Your task to perform on an android device: What's on my calendar today? Image 0: 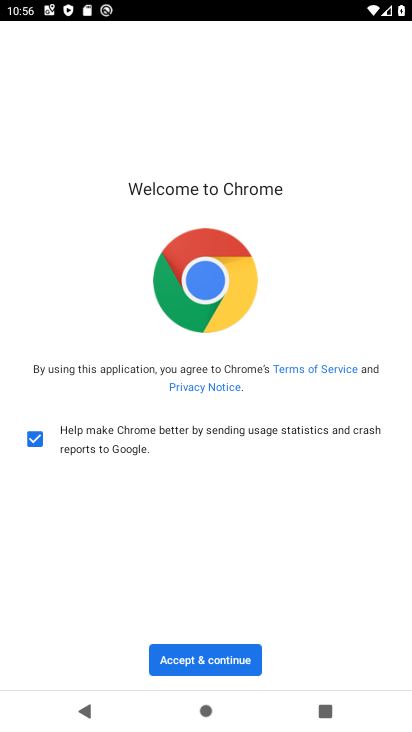
Step 0: press home button
Your task to perform on an android device: What's on my calendar today? Image 1: 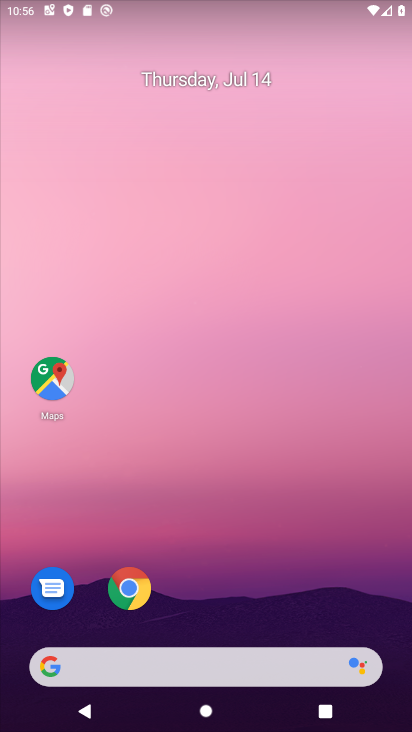
Step 1: drag from (376, 635) to (276, 121)
Your task to perform on an android device: What's on my calendar today? Image 2: 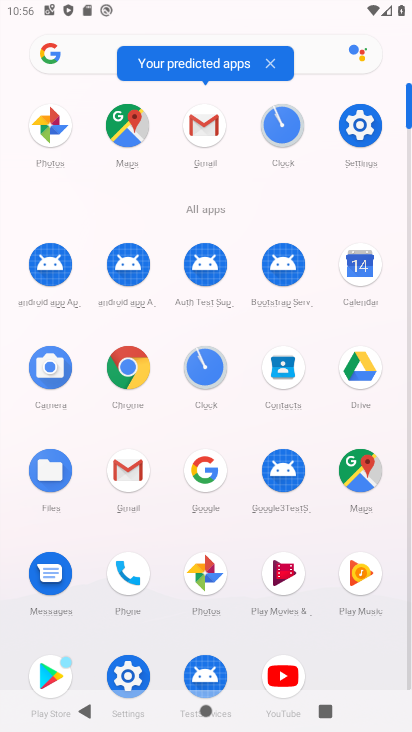
Step 2: click (360, 268)
Your task to perform on an android device: What's on my calendar today? Image 3: 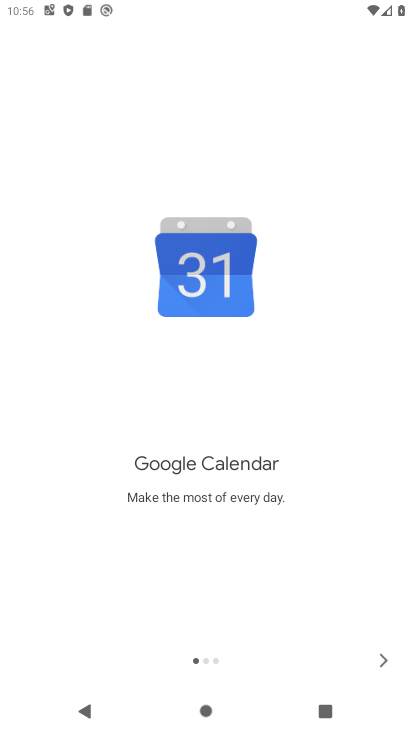
Step 3: click (377, 655)
Your task to perform on an android device: What's on my calendar today? Image 4: 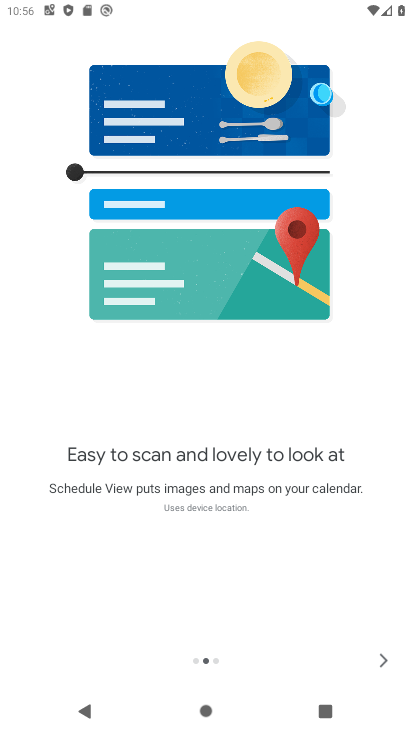
Step 4: click (377, 655)
Your task to perform on an android device: What's on my calendar today? Image 5: 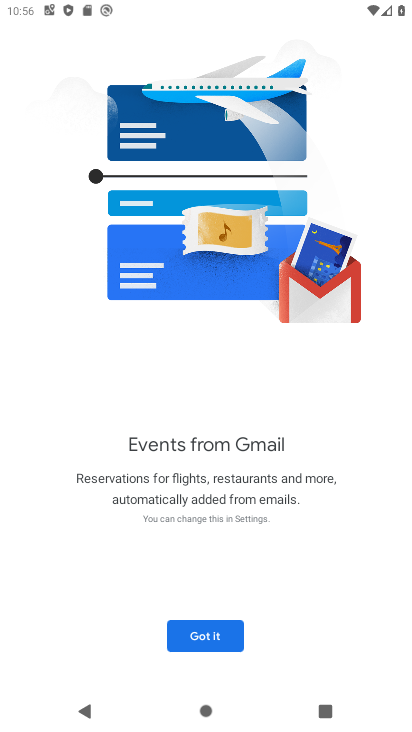
Step 5: click (204, 643)
Your task to perform on an android device: What's on my calendar today? Image 6: 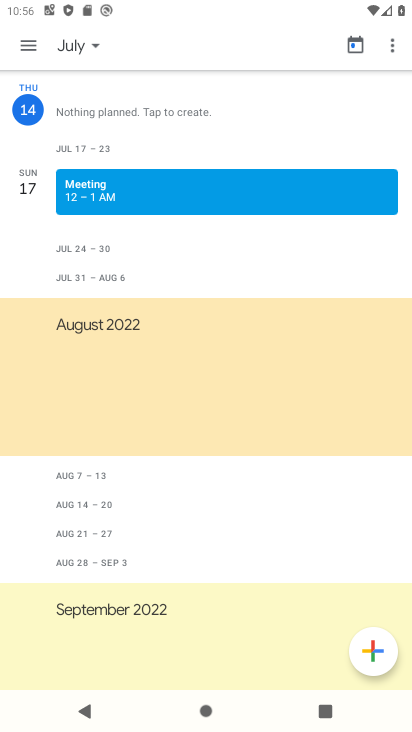
Step 6: click (28, 51)
Your task to perform on an android device: What's on my calendar today? Image 7: 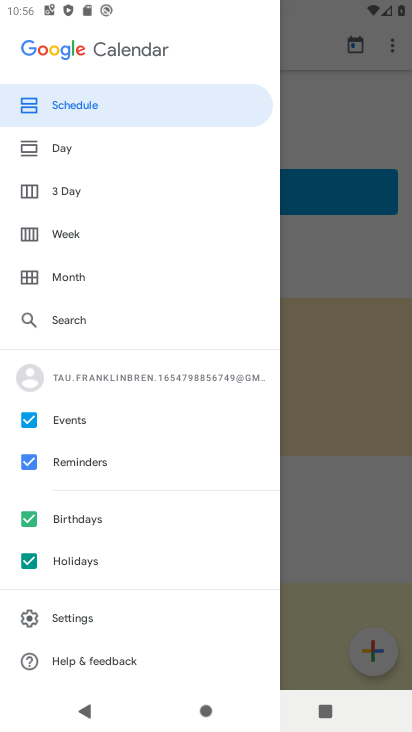
Step 7: click (46, 143)
Your task to perform on an android device: What's on my calendar today? Image 8: 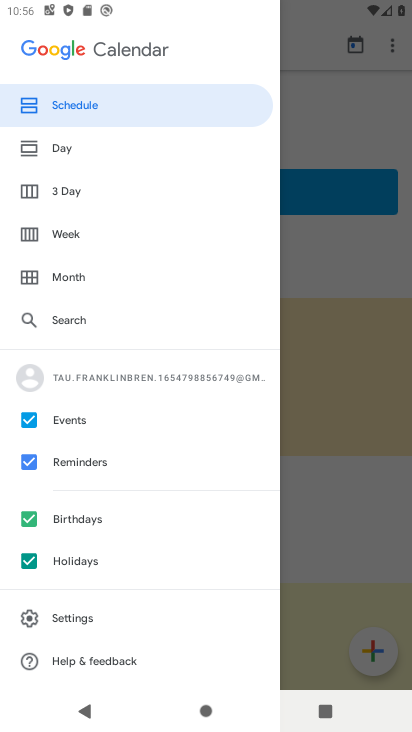
Step 8: click (57, 150)
Your task to perform on an android device: What's on my calendar today? Image 9: 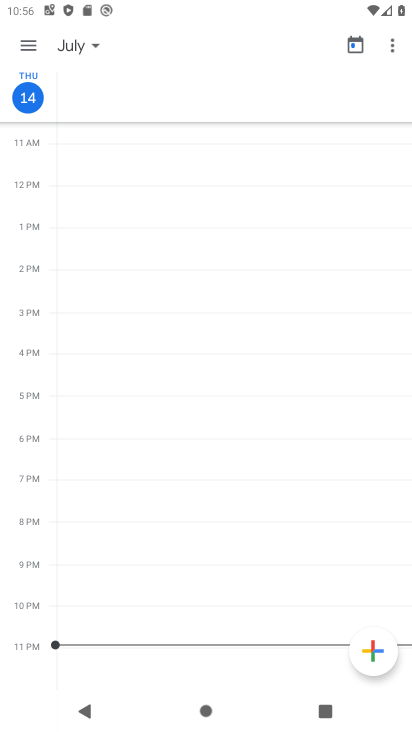
Step 9: drag from (217, 427) to (241, 227)
Your task to perform on an android device: What's on my calendar today? Image 10: 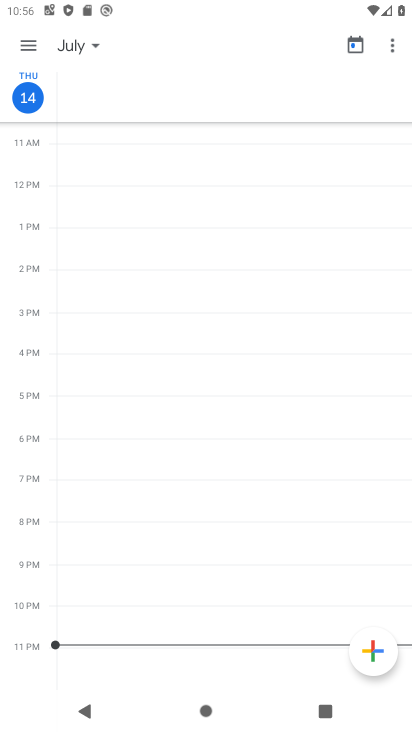
Step 10: drag from (282, 306) to (285, 592)
Your task to perform on an android device: What's on my calendar today? Image 11: 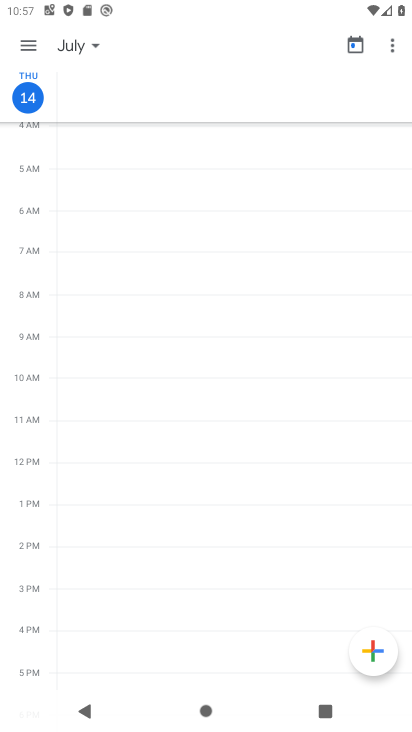
Step 11: click (99, 53)
Your task to perform on an android device: What's on my calendar today? Image 12: 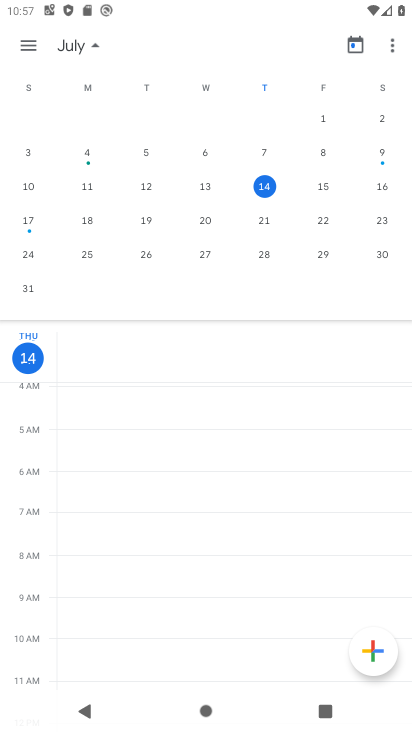
Step 12: task complete